Your task to perform on an android device: turn on improve location accuracy Image 0: 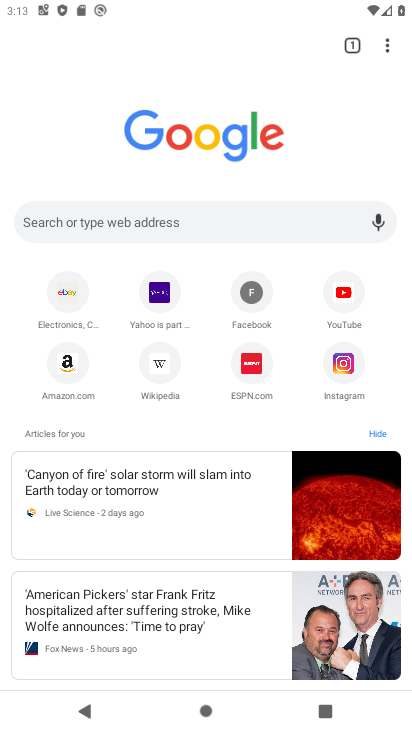
Step 0: press home button
Your task to perform on an android device: turn on improve location accuracy Image 1: 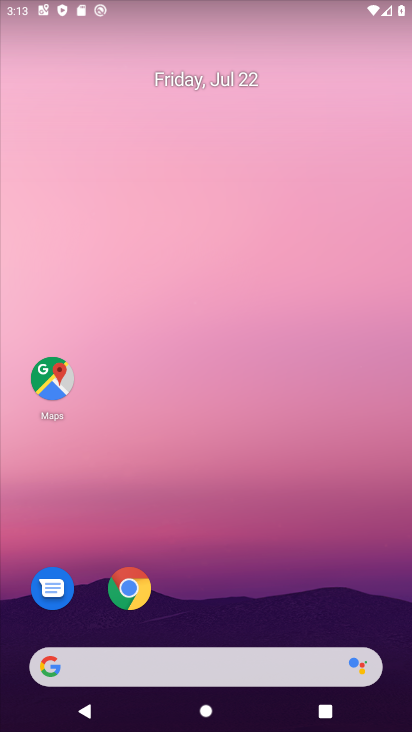
Step 1: drag from (185, 653) to (185, 205)
Your task to perform on an android device: turn on improve location accuracy Image 2: 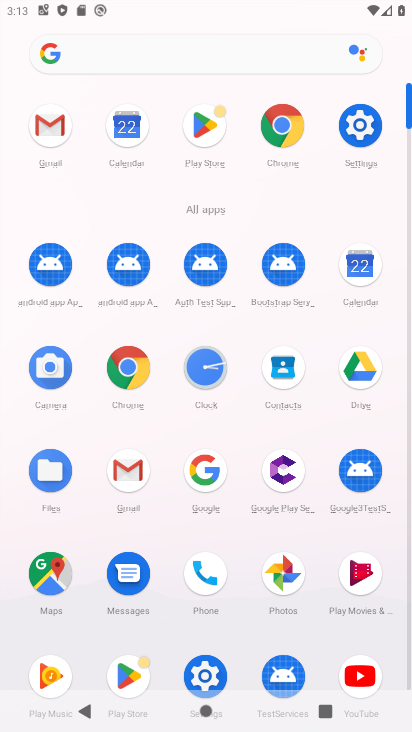
Step 2: click (356, 122)
Your task to perform on an android device: turn on improve location accuracy Image 3: 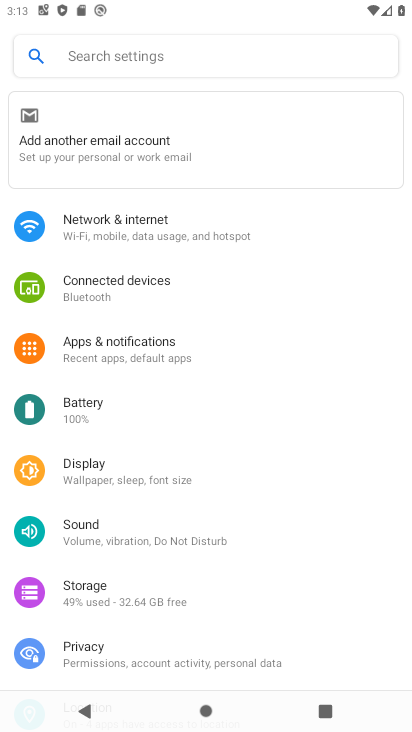
Step 3: drag from (109, 632) to (148, 250)
Your task to perform on an android device: turn on improve location accuracy Image 4: 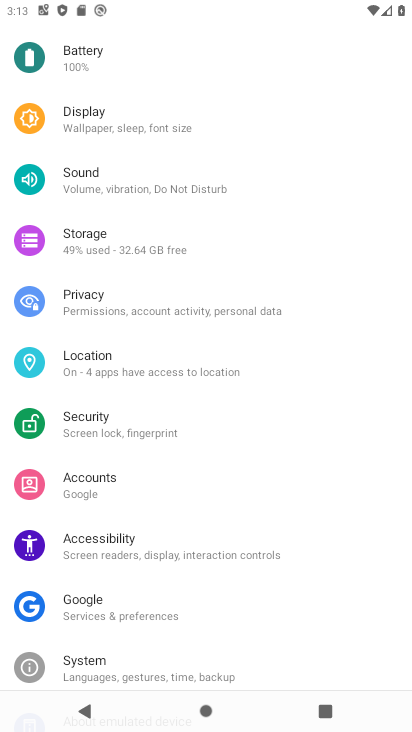
Step 4: click (95, 361)
Your task to perform on an android device: turn on improve location accuracy Image 5: 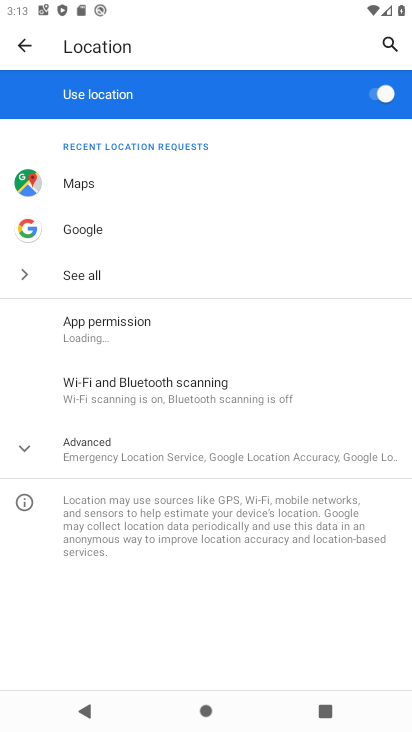
Step 5: click (117, 447)
Your task to perform on an android device: turn on improve location accuracy Image 6: 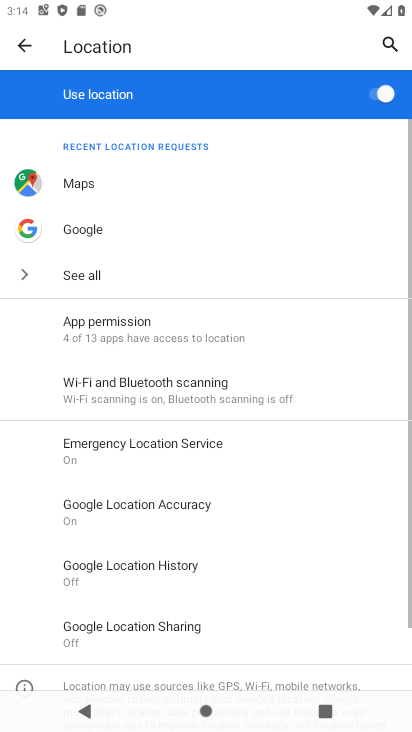
Step 6: click (127, 511)
Your task to perform on an android device: turn on improve location accuracy Image 7: 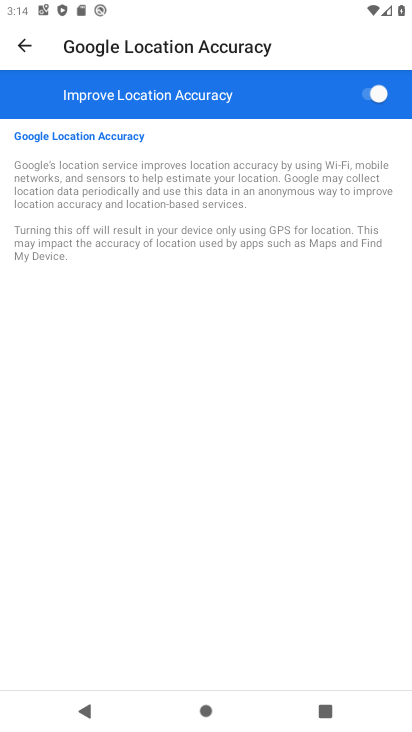
Step 7: task complete